Your task to perform on an android device: turn on data saver in the chrome app Image 0: 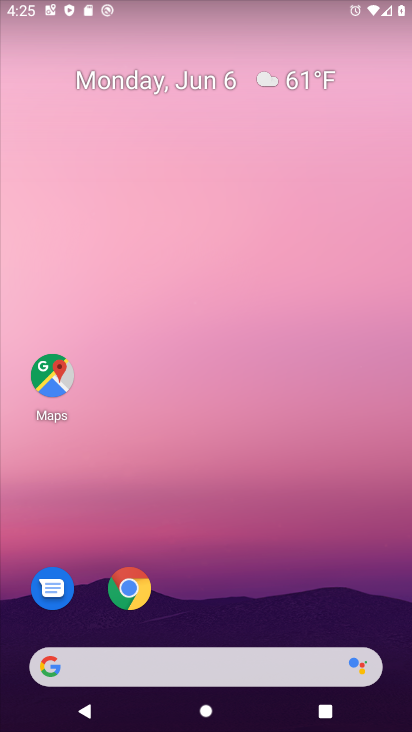
Step 0: drag from (266, 626) to (231, 218)
Your task to perform on an android device: turn on data saver in the chrome app Image 1: 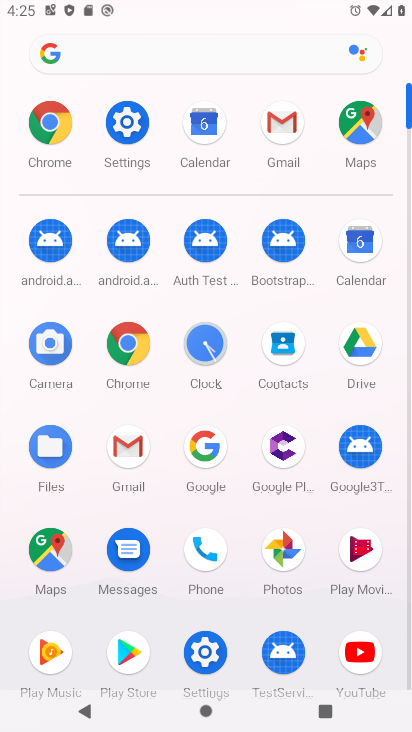
Step 1: click (61, 132)
Your task to perform on an android device: turn on data saver in the chrome app Image 2: 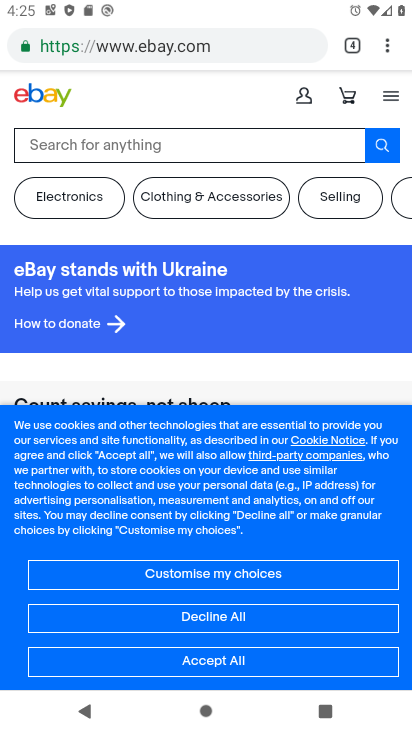
Step 2: click (393, 54)
Your task to perform on an android device: turn on data saver in the chrome app Image 3: 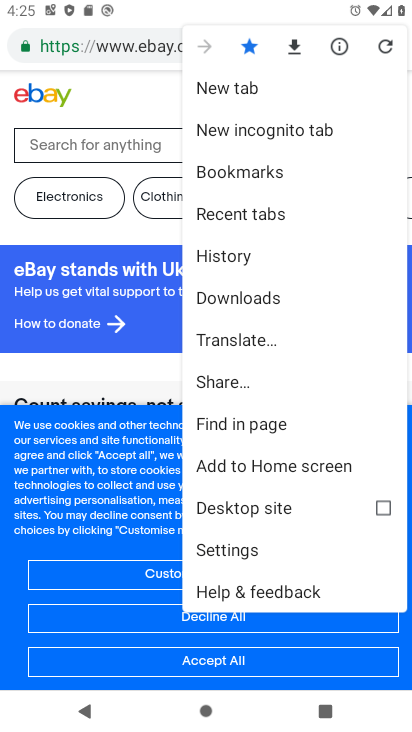
Step 3: click (282, 553)
Your task to perform on an android device: turn on data saver in the chrome app Image 4: 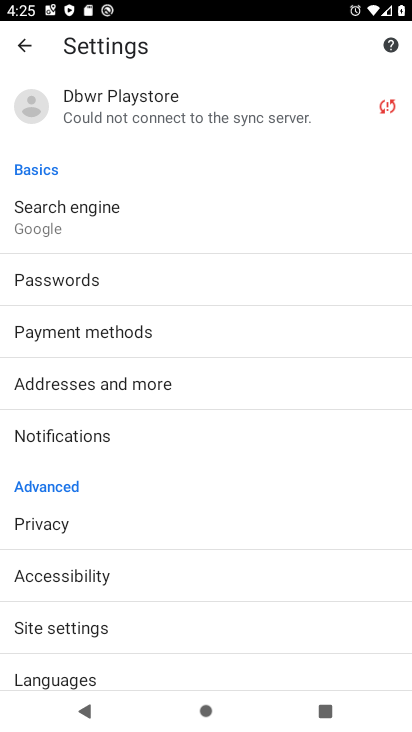
Step 4: drag from (263, 550) to (265, 373)
Your task to perform on an android device: turn on data saver in the chrome app Image 5: 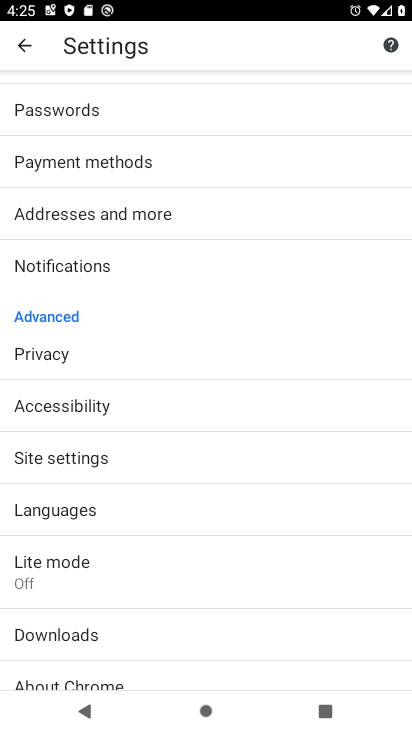
Step 5: click (236, 557)
Your task to perform on an android device: turn on data saver in the chrome app Image 6: 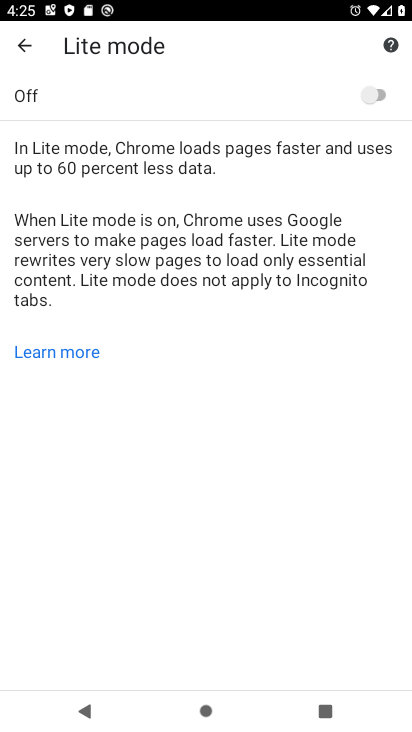
Step 6: click (366, 106)
Your task to perform on an android device: turn on data saver in the chrome app Image 7: 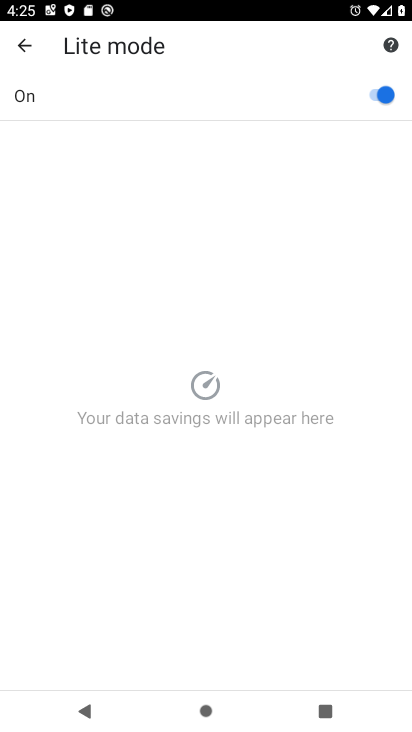
Step 7: task complete